Your task to perform on an android device: Search for sushi restaurants on Maps Image 0: 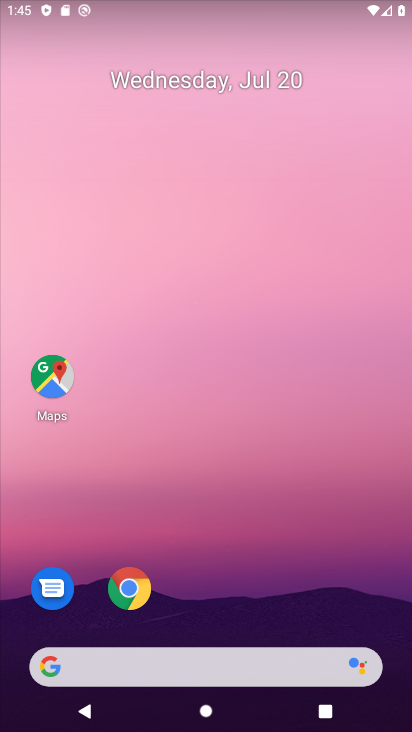
Step 0: drag from (273, 576) to (393, 9)
Your task to perform on an android device: Search for sushi restaurants on Maps Image 1: 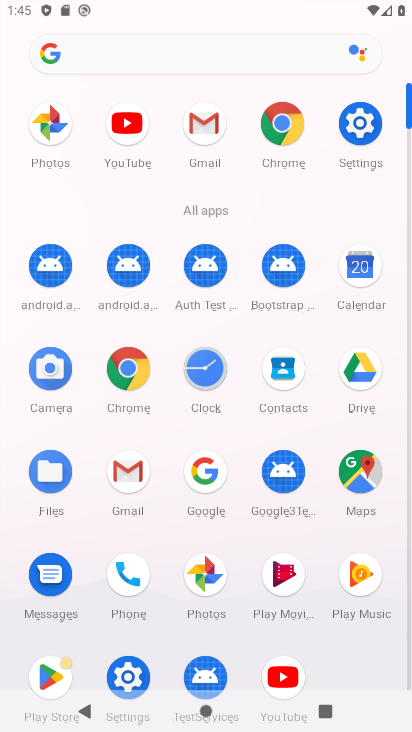
Step 1: click (353, 475)
Your task to perform on an android device: Search for sushi restaurants on Maps Image 2: 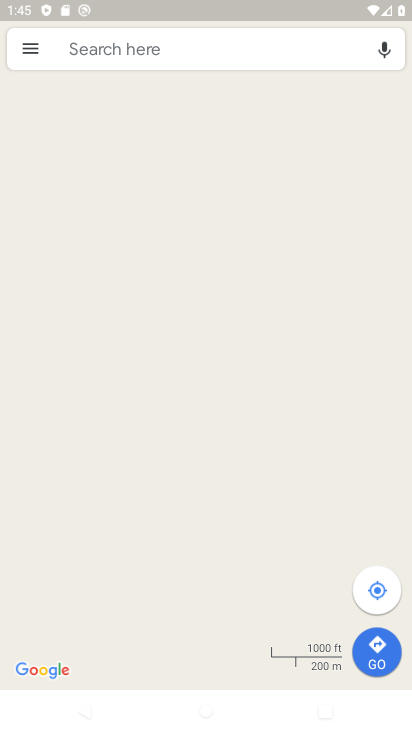
Step 2: click (171, 48)
Your task to perform on an android device: Search for sushi restaurants on Maps Image 3: 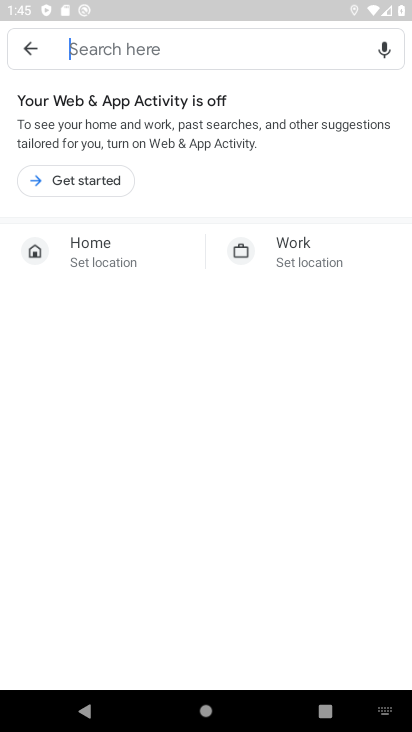
Step 3: type "sushi restaurants"
Your task to perform on an android device: Search for sushi restaurants on Maps Image 4: 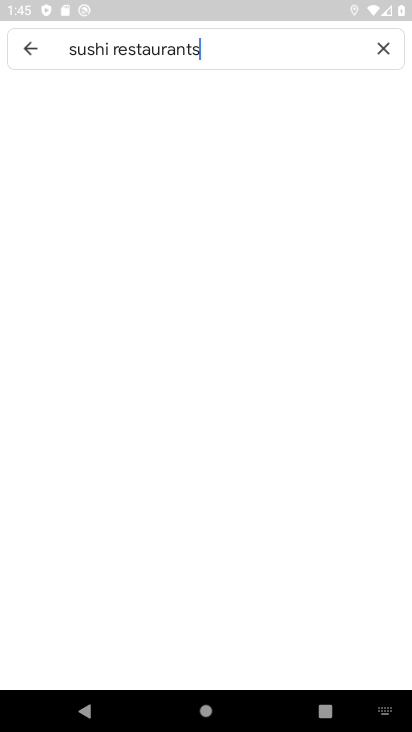
Step 4: press enter
Your task to perform on an android device: Search for sushi restaurants on Maps Image 5: 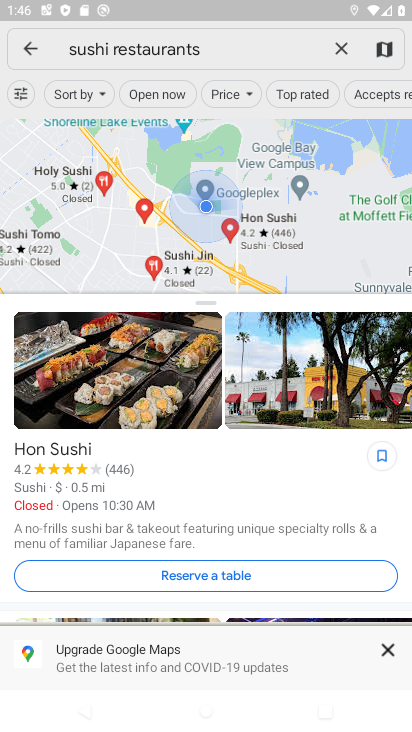
Step 5: task complete